Your task to perform on an android device: uninstall "Flipkart Online Shopping App" Image 0: 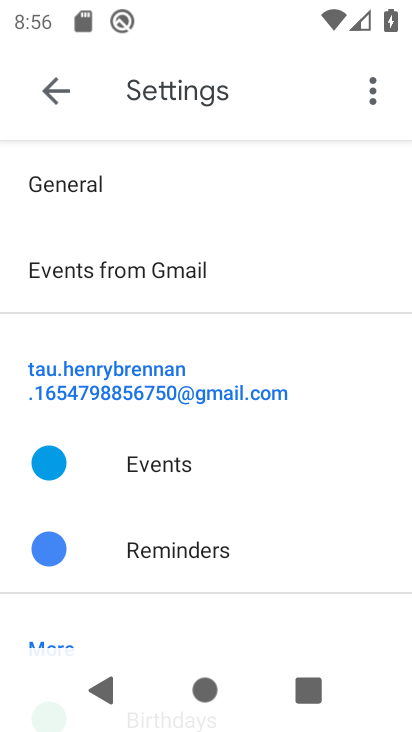
Step 0: press home button
Your task to perform on an android device: uninstall "Flipkart Online Shopping App" Image 1: 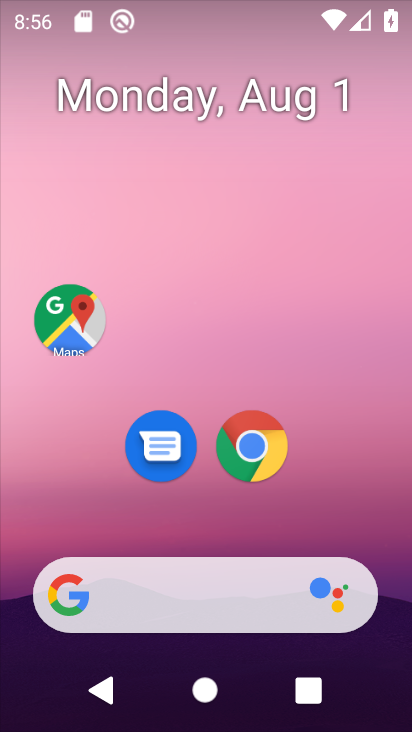
Step 1: drag from (214, 525) to (239, 168)
Your task to perform on an android device: uninstall "Flipkart Online Shopping App" Image 2: 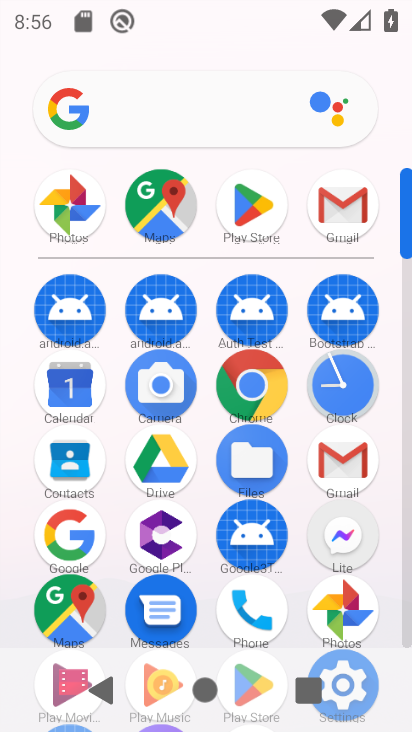
Step 2: click (235, 190)
Your task to perform on an android device: uninstall "Flipkart Online Shopping App" Image 3: 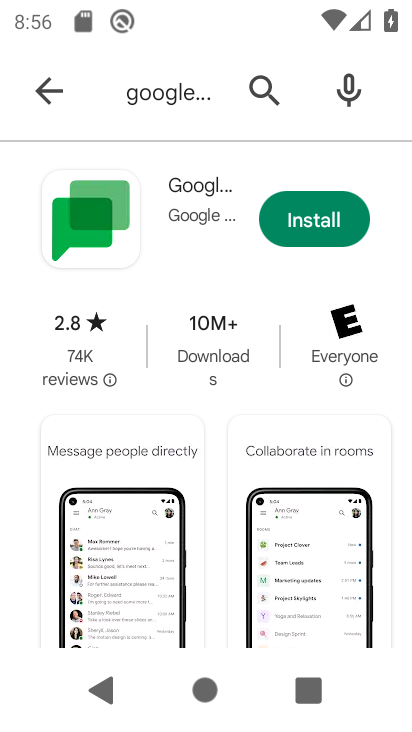
Step 3: click (259, 97)
Your task to perform on an android device: uninstall "Flipkart Online Shopping App" Image 4: 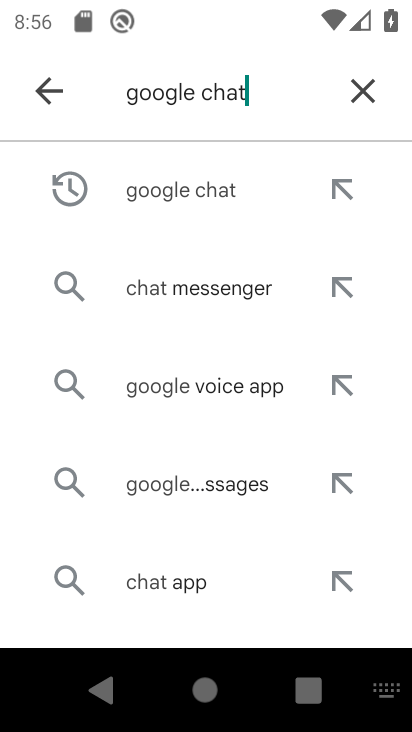
Step 4: click (375, 103)
Your task to perform on an android device: uninstall "Flipkart Online Shopping App" Image 5: 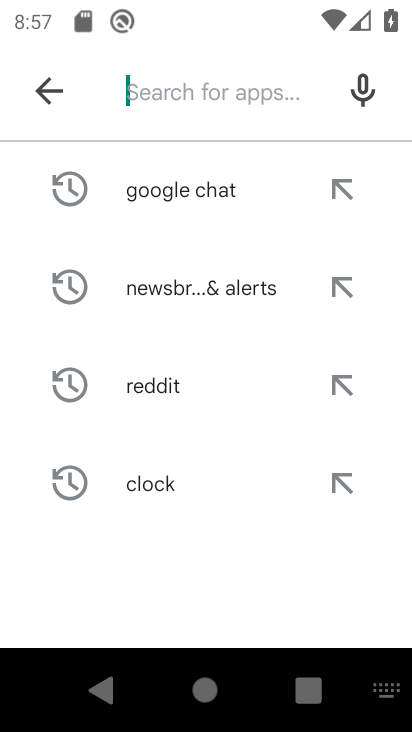
Step 5: type "Flipkart Online Shopping App"
Your task to perform on an android device: uninstall "Flipkart Online Shopping App" Image 6: 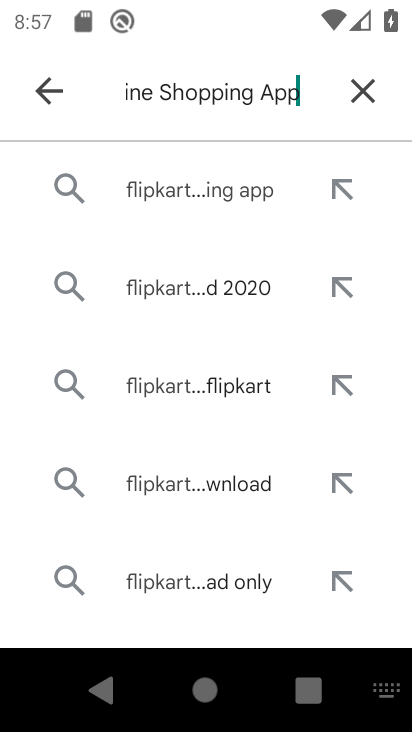
Step 6: type ""
Your task to perform on an android device: uninstall "Flipkart Online Shopping App" Image 7: 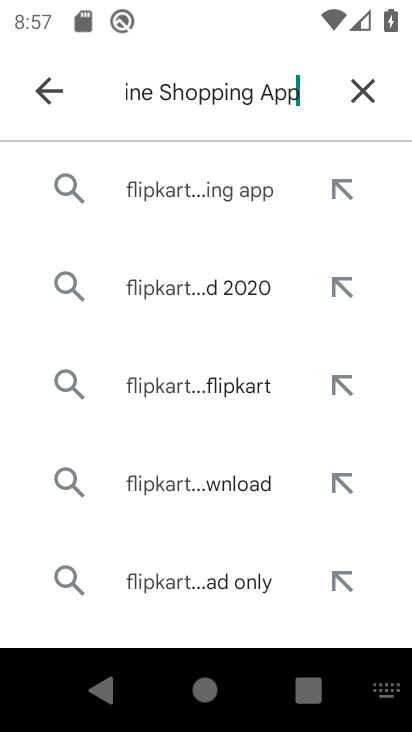
Step 7: click (207, 196)
Your task to perform on an android device: uninstall "Flipkart Online Shopping App" Image 8: 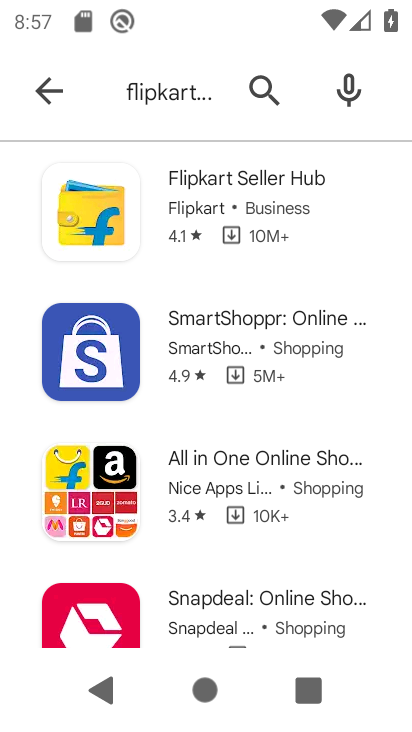
Step 8: click (231, 199)
Your task to perform on an android device: uninstall "Flipkart Online Shopping App" Image 9: 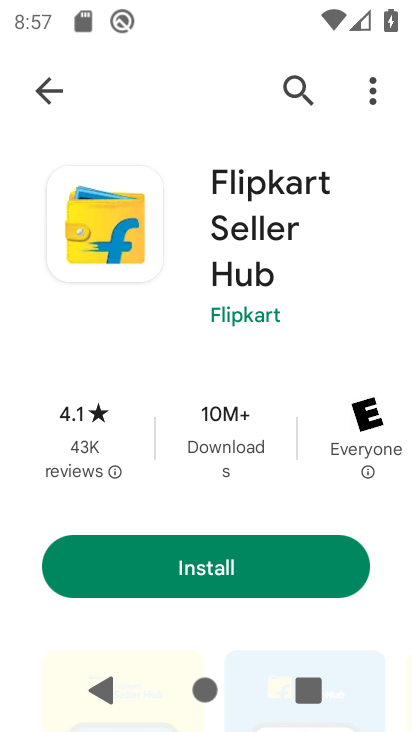
Step 9: task complete